Your task to perform on an android device: clear history in the chrome app Image 0: 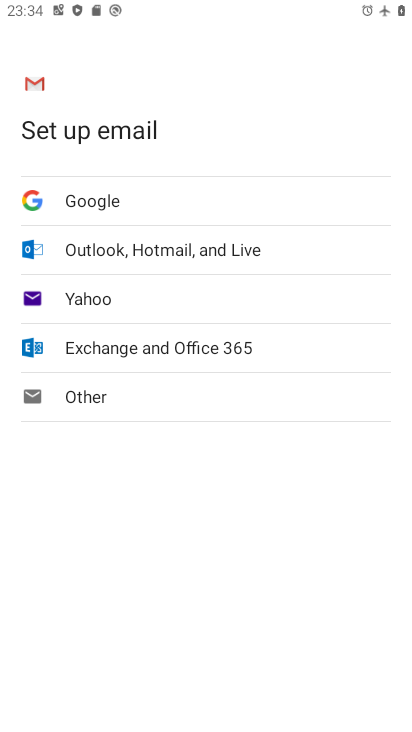
Step 0: press home button
Your task to perform on an android device: clear history in the chrome app Image 1: 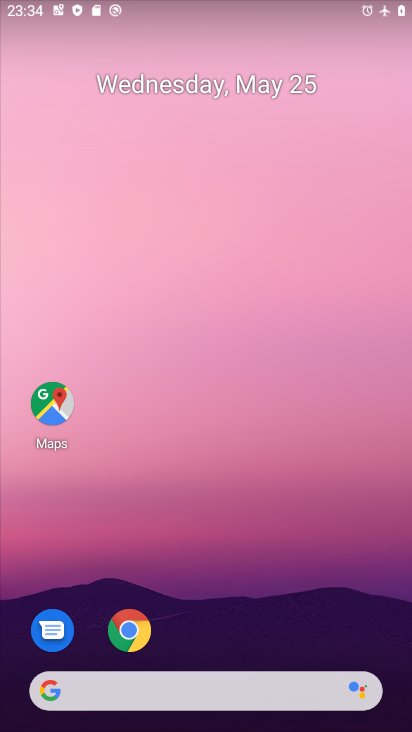
Step 1: click (142, 624)
Your task to perform on an android device: clear history in the chrome app Image 2: 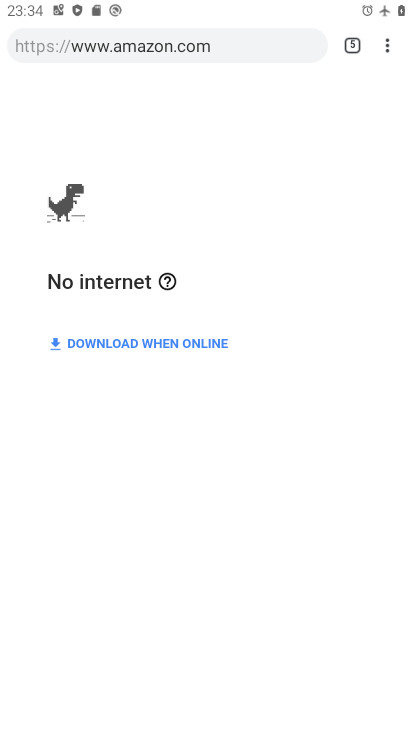
Step 2: click (383, 47)
Your task to perform on an android device: clear history in the chrome app Image 3: 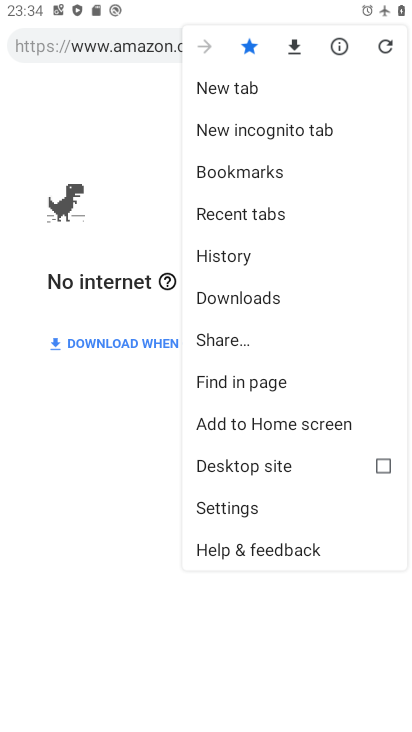
Step 3: click (239, 264)
Your task to perform on an android device: clear history in the chrome app Image 4: 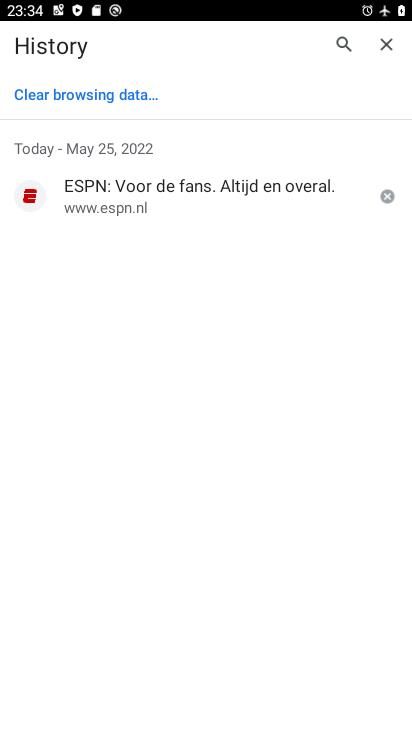
Step 4: click (97, 95)
Your task to perform on an android device: clear history in the chrome app Image 5: 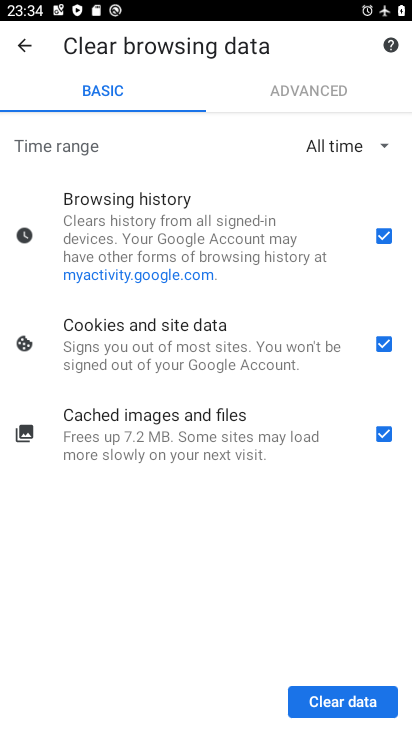
Step 5: click (346, 699)
Your task to perform on an android device: clear history in the chrome app Image 6: 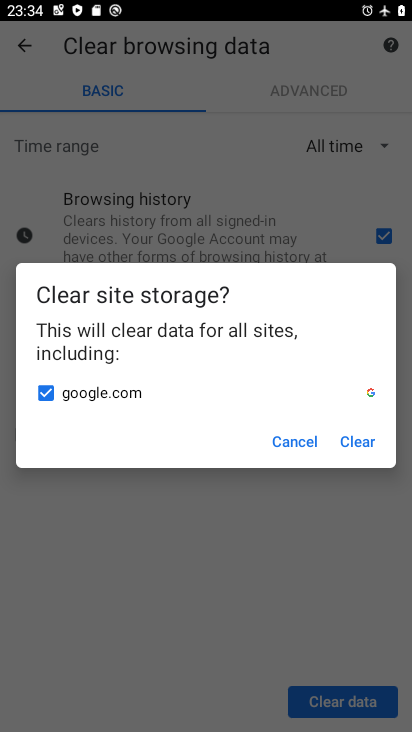
Step 6: click (348, 440)
Your task to perform on an android device: clear history in the chrome app Image 7: 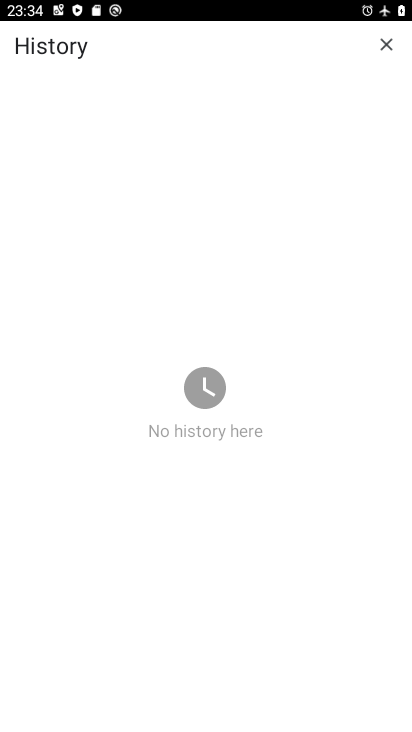
Step 7: task complete